Your task to perform on an android device: turn off notifications in google photos Image 0: 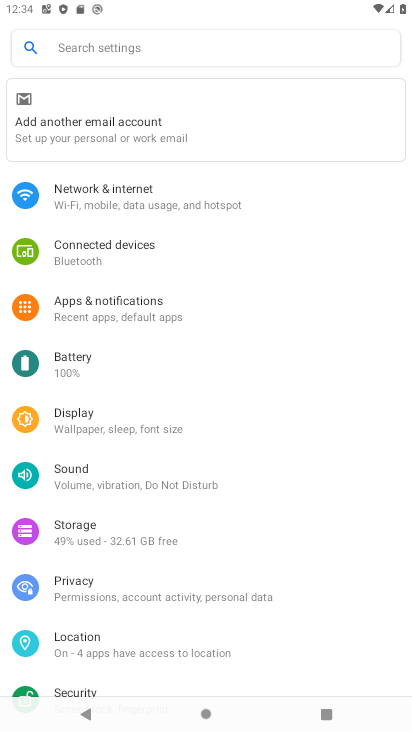
Step 0: press home button
Your task to perform on an android device: turn off notifications in google photos Image 1: 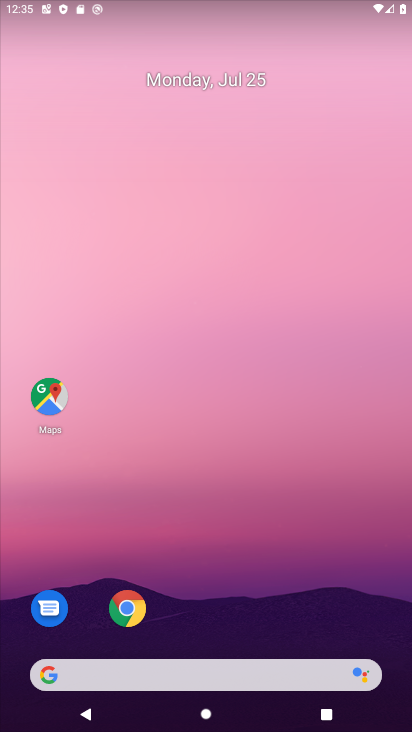
Step 1: drag from (187, 600) to (219, 112)
Your task to perform on an android device: turn off notifications in google photos Image 2: 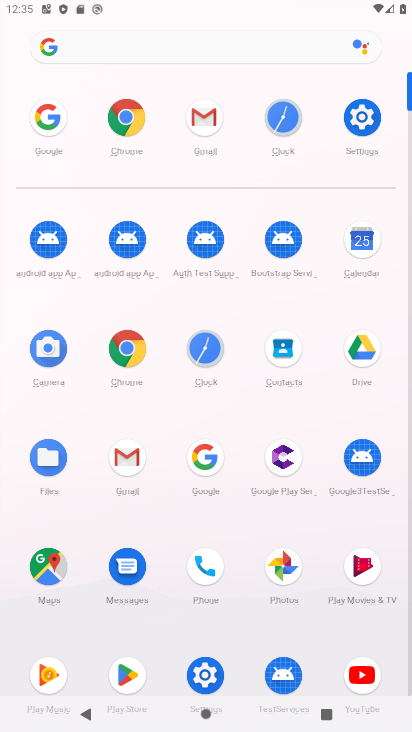
Step 2: click (283, 573)
Your task to perform on an android device: turn off notifications in google photos Image 3: 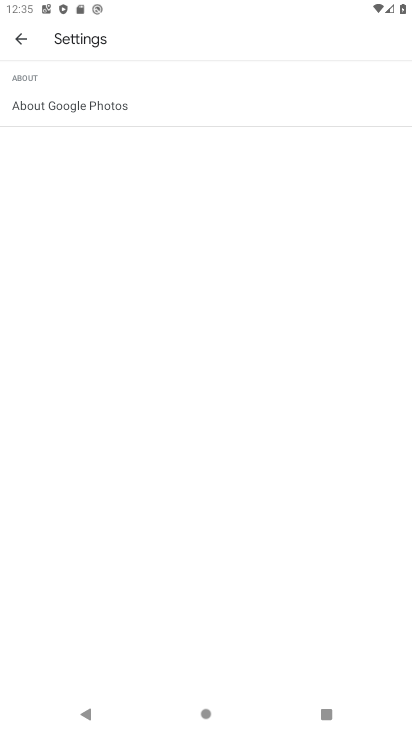
Step 3: press back button
Your task to perform on an android device: turn off notifications in google photos Image 4: 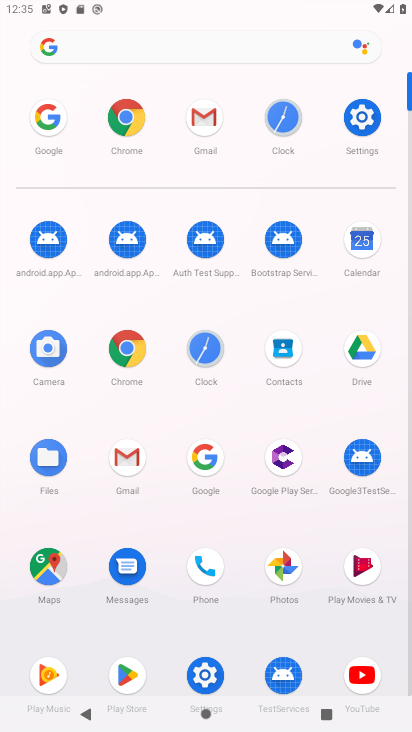
Step 4: click (269, 569)
Your task to perform on an android device: turn off notifications in google photos Image 5: 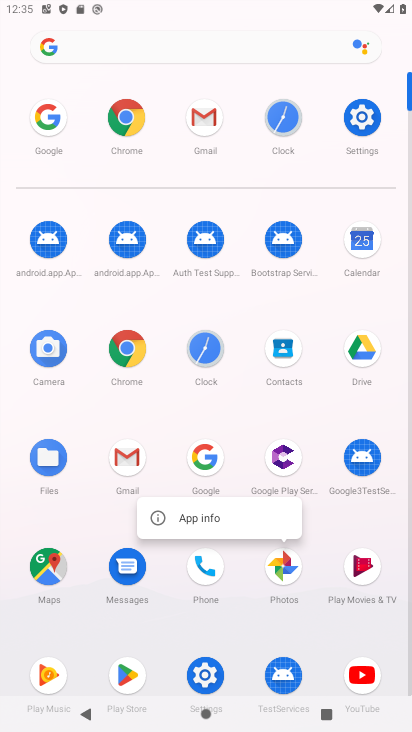
Step 5: click (284, 557)
Your task to perform on an android device: turn off notifications in google photos Image 6: 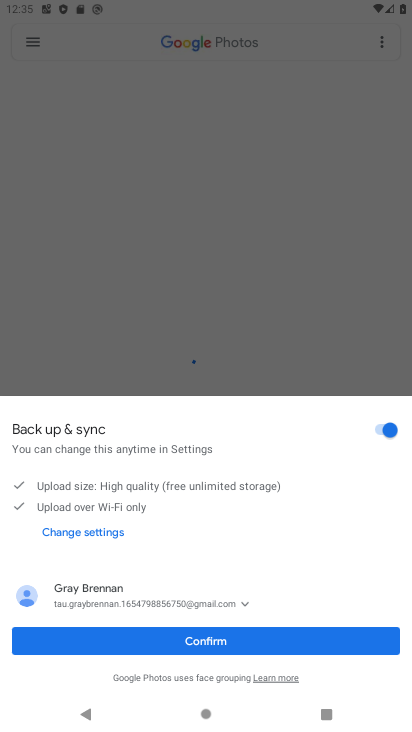
Step 6: click (239, 643)
Your task to perform on an android device: turn off notifications in google photos Image 7: 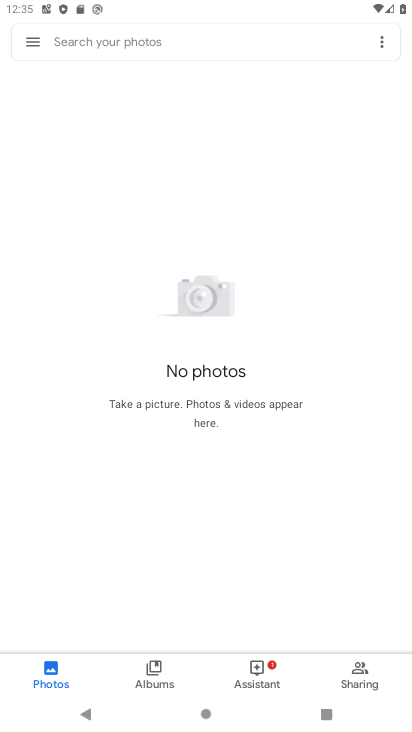
Step 7: click (21, 47)
Your task to perform on an android device: turn off notifications in google photos Image 8: 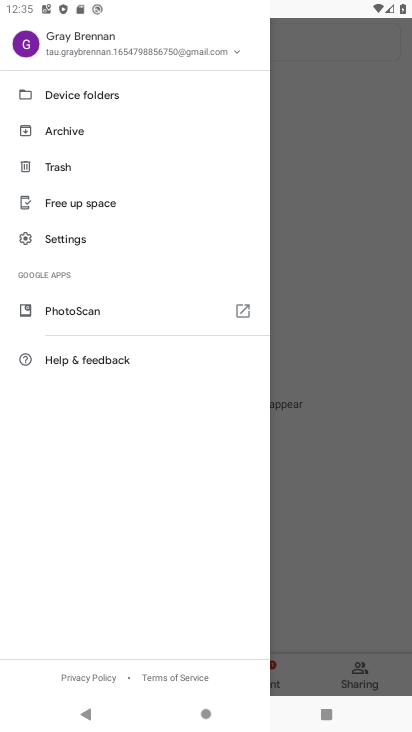
Step 8: click (78, 237)
Your task to perform on an android device: turn off notifications in google photos Image 9: 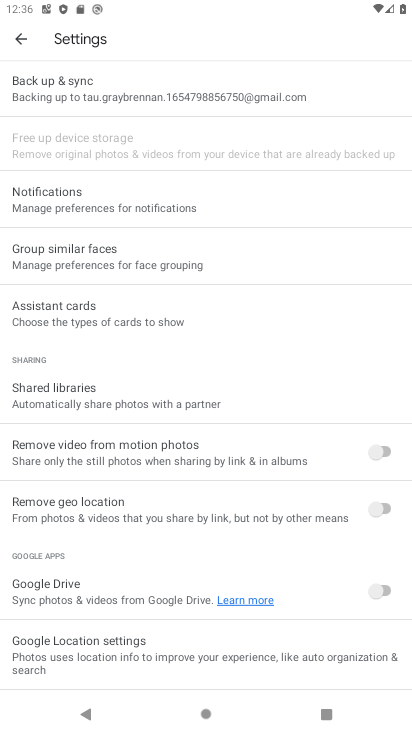
Step 9: drag from (152, 568) to (190, 577)
Your task to perform on an android device: turn off notifications in google photos Image 10: 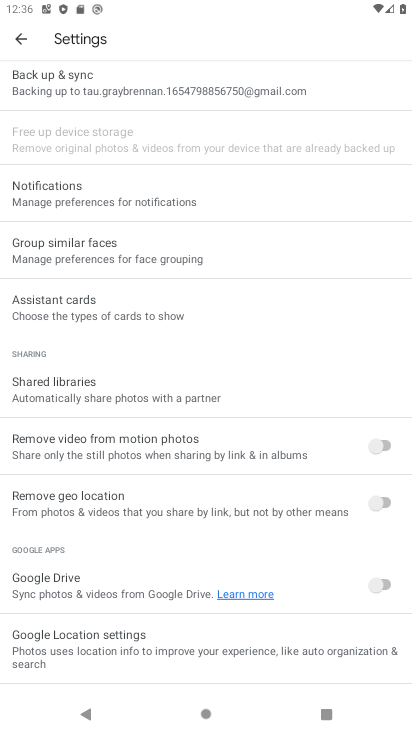
Step 10: click (141, 206)
Your task to perform on an android device: turn off notifications in google photos Image 11: 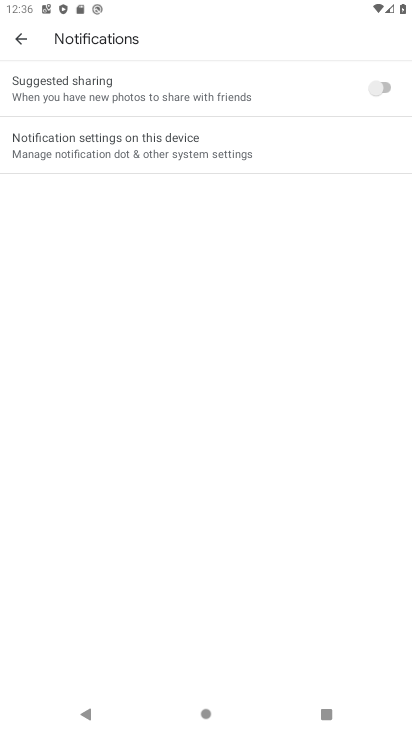
Step 11: click (155, 163)
Your task to perform on an android device: turn off notifications in google photos Image 12: 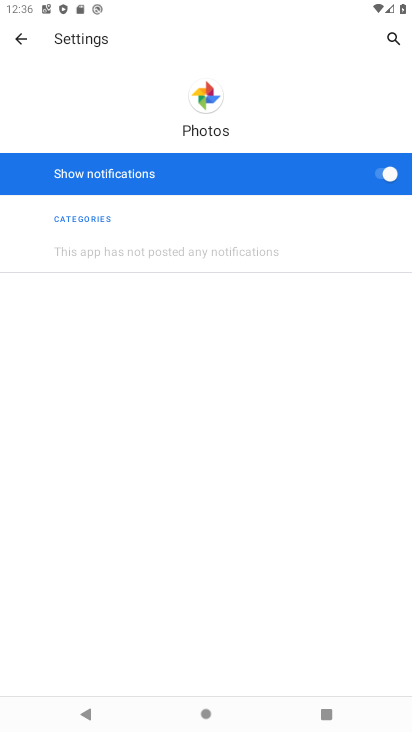
Step 12: click (375, 179)
Your task to perform on an android device: turn off notifications in google photos Image 13: 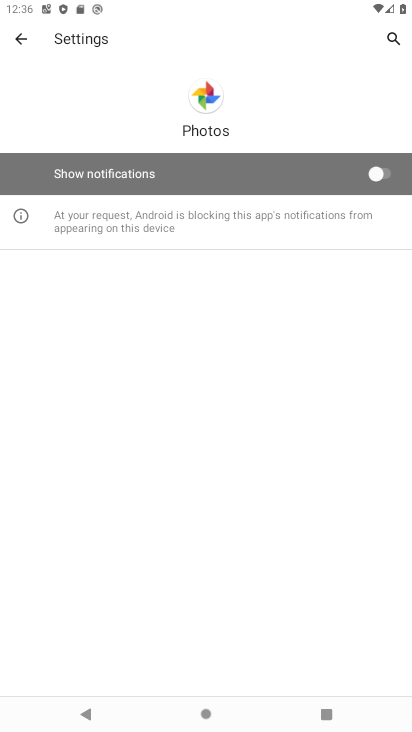
Step 13: task complete